Your task to perform on an android device: Go to Yahoo.com Image 0: 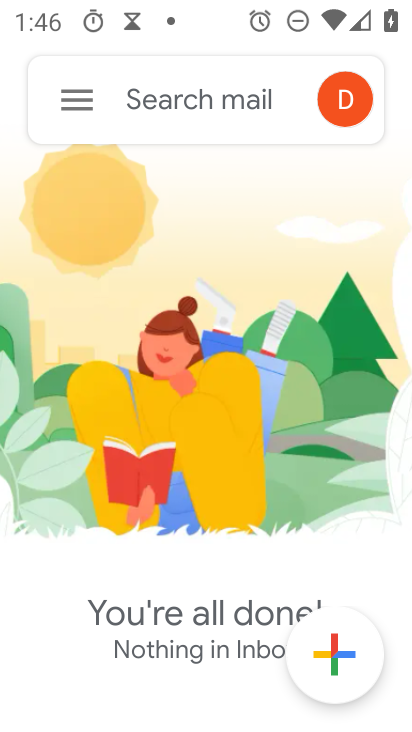
Step 0: press home button
Your task to perform on an android device: Go to Yahoo.com Image 1: 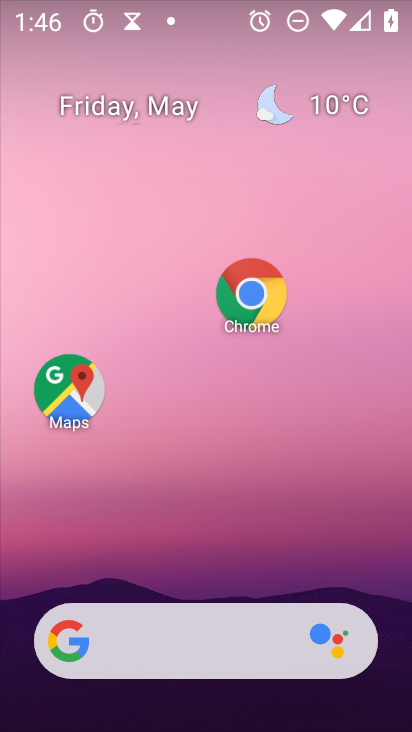
Step 1: click (260, 301)
Your task to perform on an android device: Go to Yahoo.com Image 2: 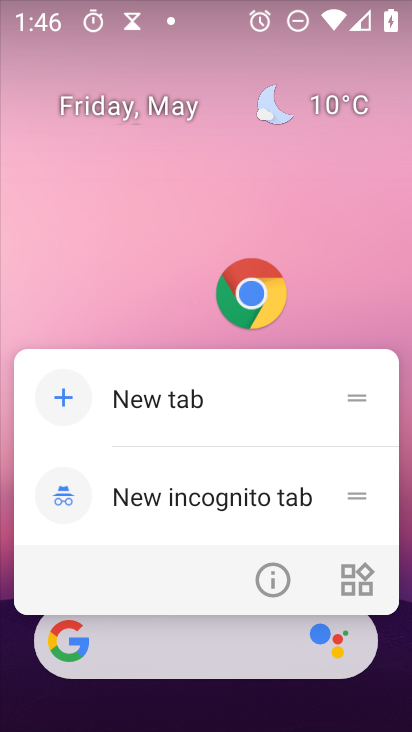
Step 2: click (260, 301)
Your task to perform on an android device: Go to Yahoo.com Image 3: 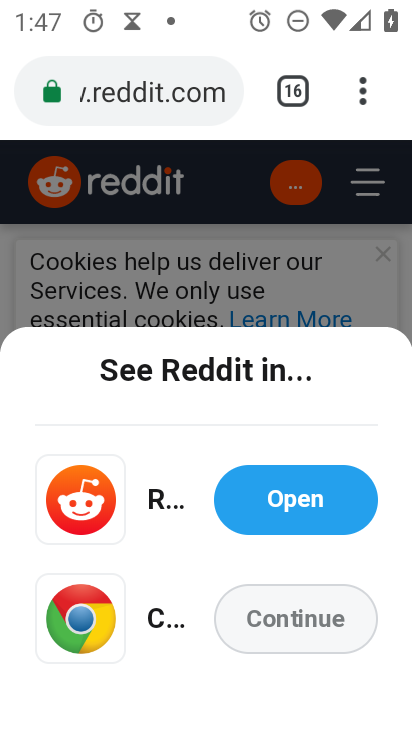
Step 3: drag from (360, 95) to (203, 191)
Your task to perform on an android device: Go to Yahoo.com Image 4: 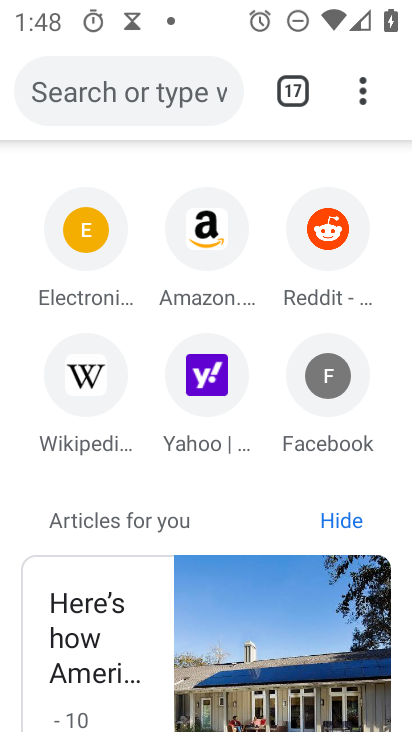
Step 4: click (197, 382)
Your task to perform on an android device: Go to Yahoo.com Image 5: 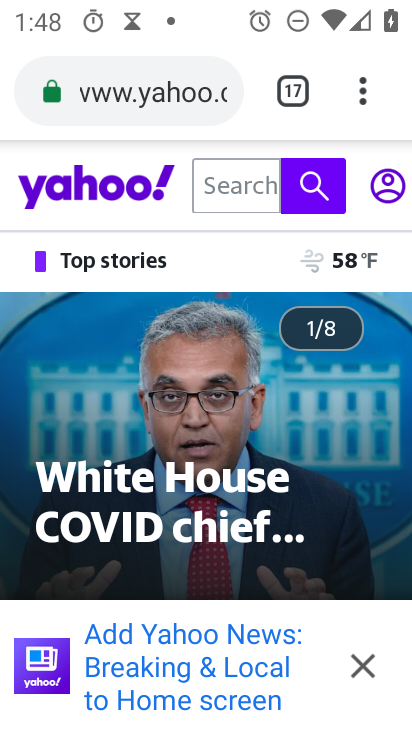
Step 5: task complete